Your task to perform on an android device: Do I have any events today? Image 0: 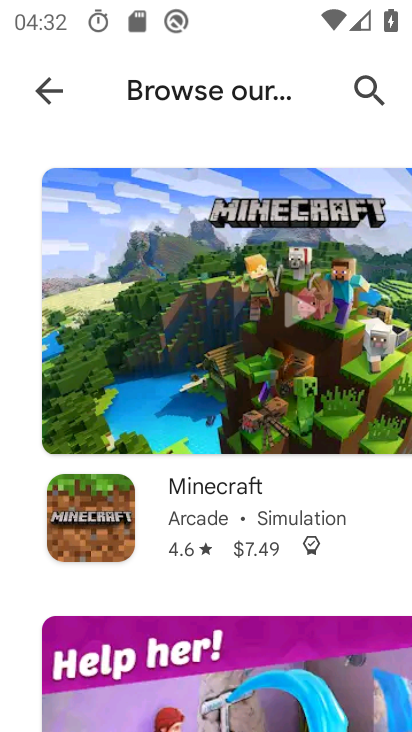
Step 0: press back button
Your task to perform on an android device: Do I have any events today? Image 1: 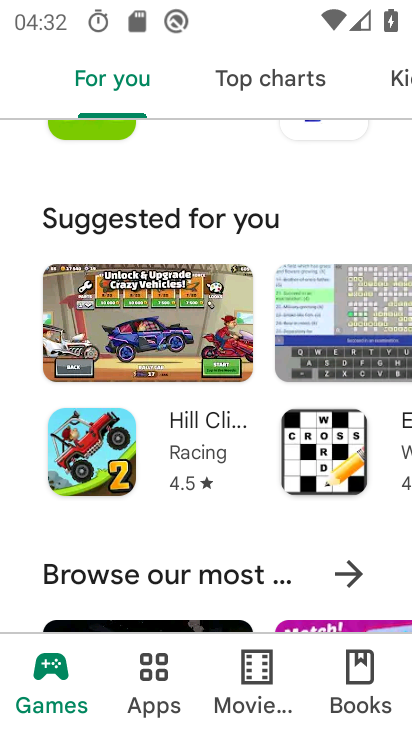
Step 1: press home button
Your task to perform on an android device: Do I have any events today? Image 2: 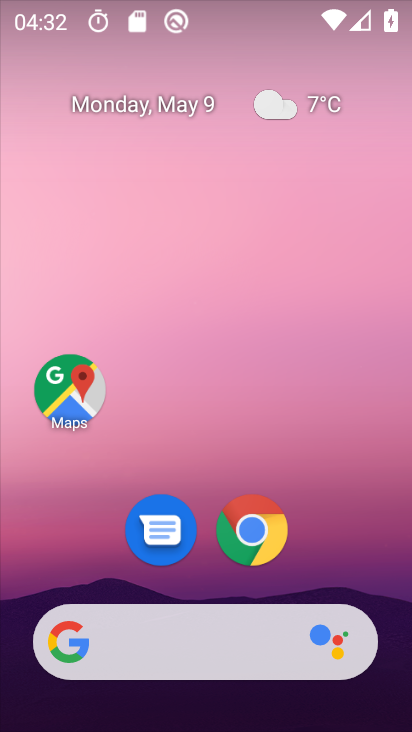
Step 2: drag from (180, 479) to (273, 1)
Your task to perform on an android device: Do I have any events today? Image 3: 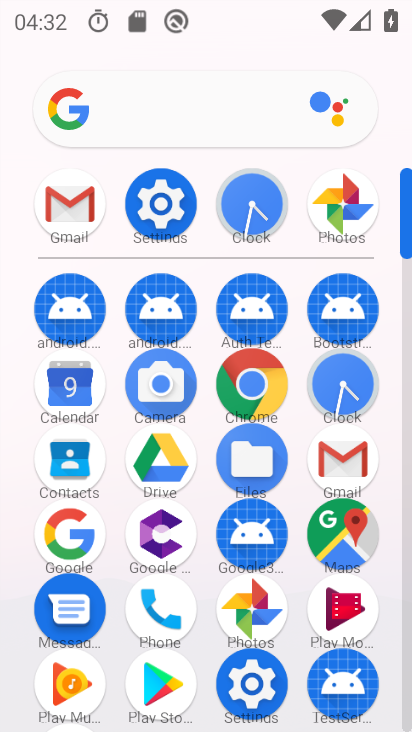
Step 3: click (73, 396)
Your task to perform on an android device: Do I have any events today? Image 4: 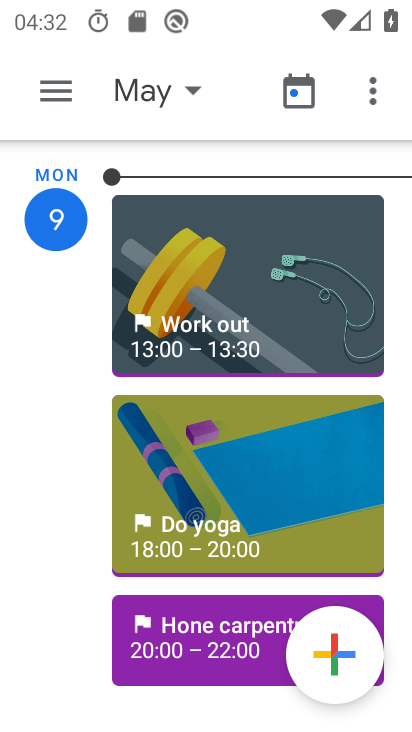
Step 4: click (190, 507)
Your task to perform on an android device: Do I have any events today? Image 5: 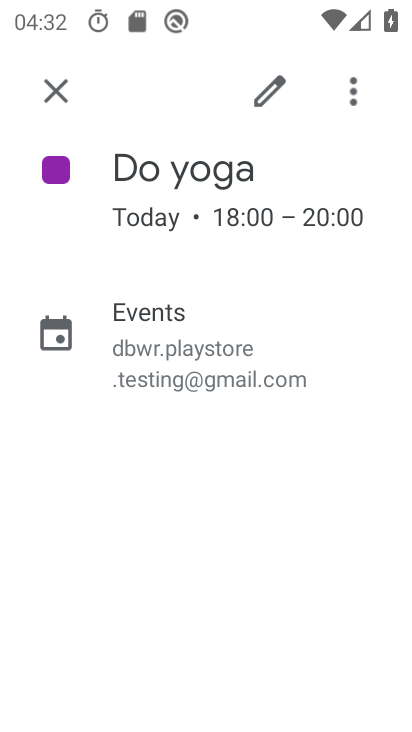
Step 5: task complete